Your task to perform on an android device: change your default location settings in chrome Image 0: 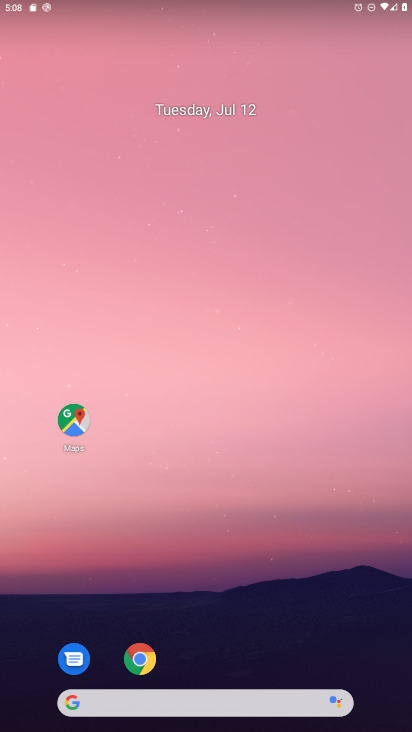
Step 0: drag from (200, 624) to (234, 185)
Your task to perform on an android device: change your default location settings in chrome Image 1: 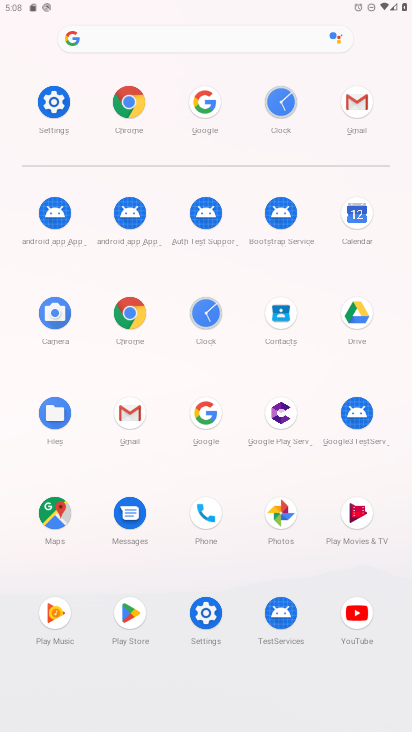
Step 1: click (134, 113)
Your task to perform on an android device: change your default location settings in chrome Image 2: 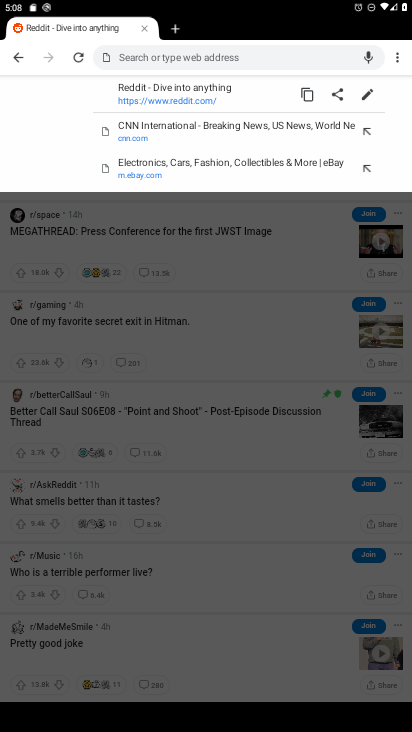
Step 2: press home button
Your task to perform on an android device: change your default location settings in chrome Image 3: 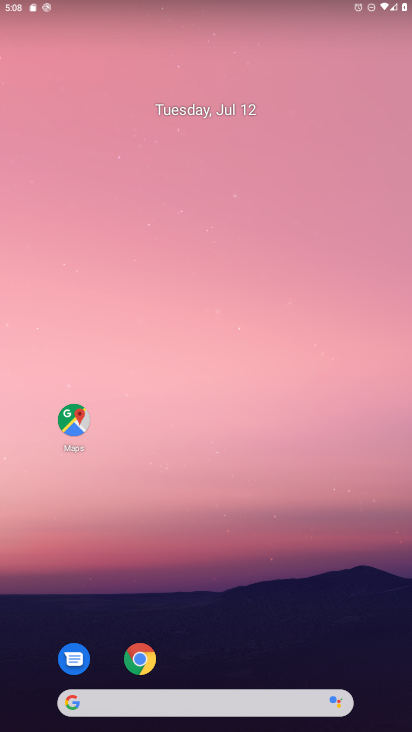
Step 3: click (138, 669)
Your task to perform on an android device: change your default location settings in chrome Image 4: 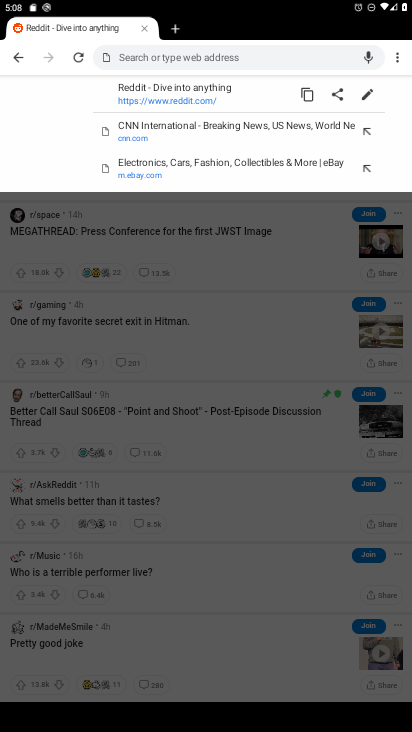
Step 4: click (16, 59)
Your task to perform on an android device: change your default location settings in chrome Image 5: 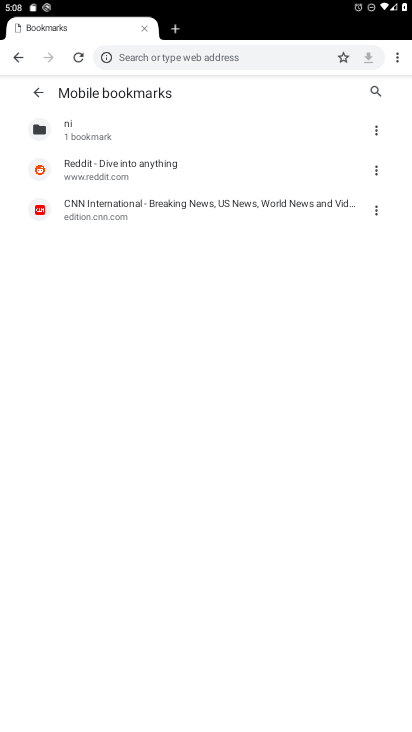
Step 5: click (398, 60)
Your task to perform on an android device: change your default location settings in chrome Image 6: 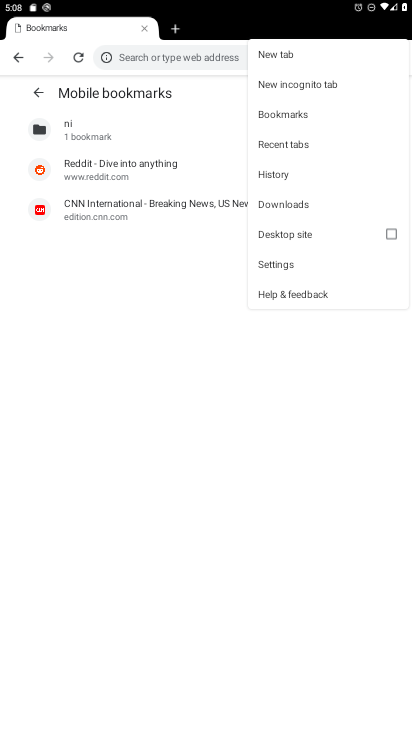
Step 6: click (284, 260)
Your task to perform on an android device: change your default location settings in chrome Image 7: 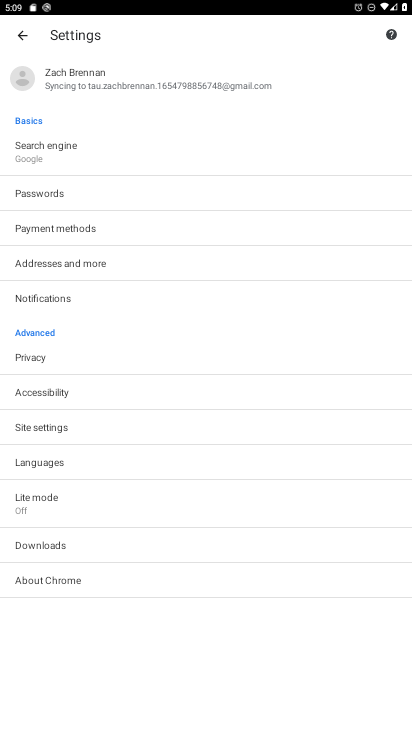
Step 7: click (52, 430)
Your task to perform on an android device: change your default location settings in chrome Image 8: 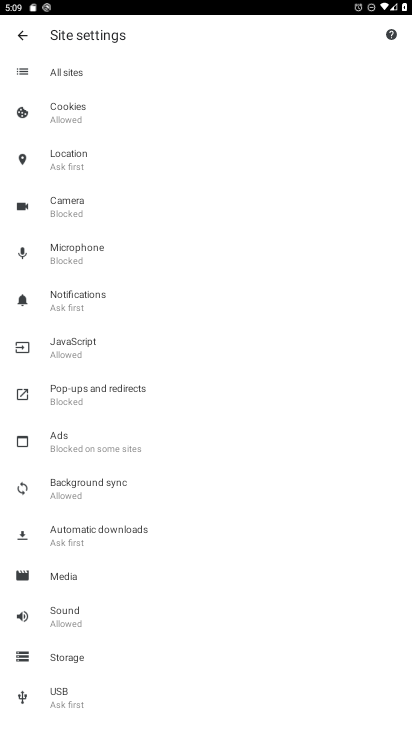
Step 8: click (76, 149)
Your task to perform on an android device: change your default location settings in chrome Image 9: 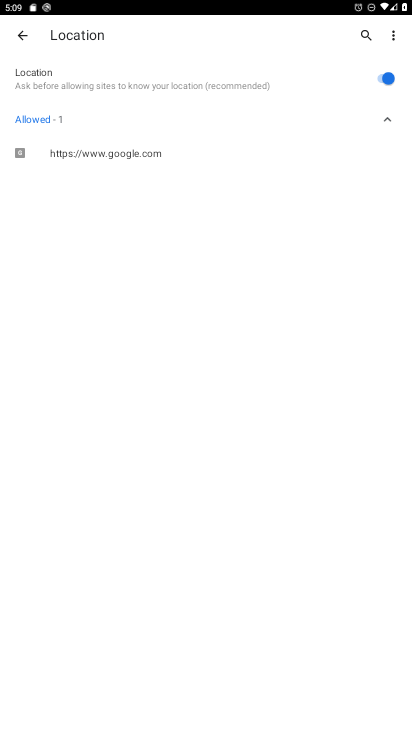
Step 9: click (378, 80)
Your task to perform on an android device: change your default location settings in chrome Image 10: 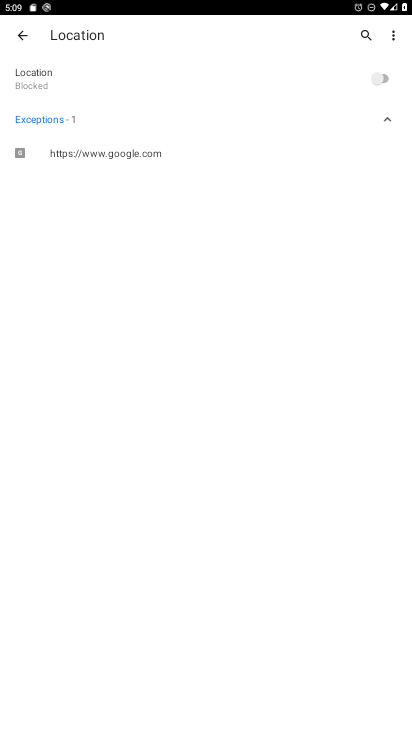
Step 10: task complete